Your task to perform on an android device: install app "Microsoft Authenticator" Image 0: 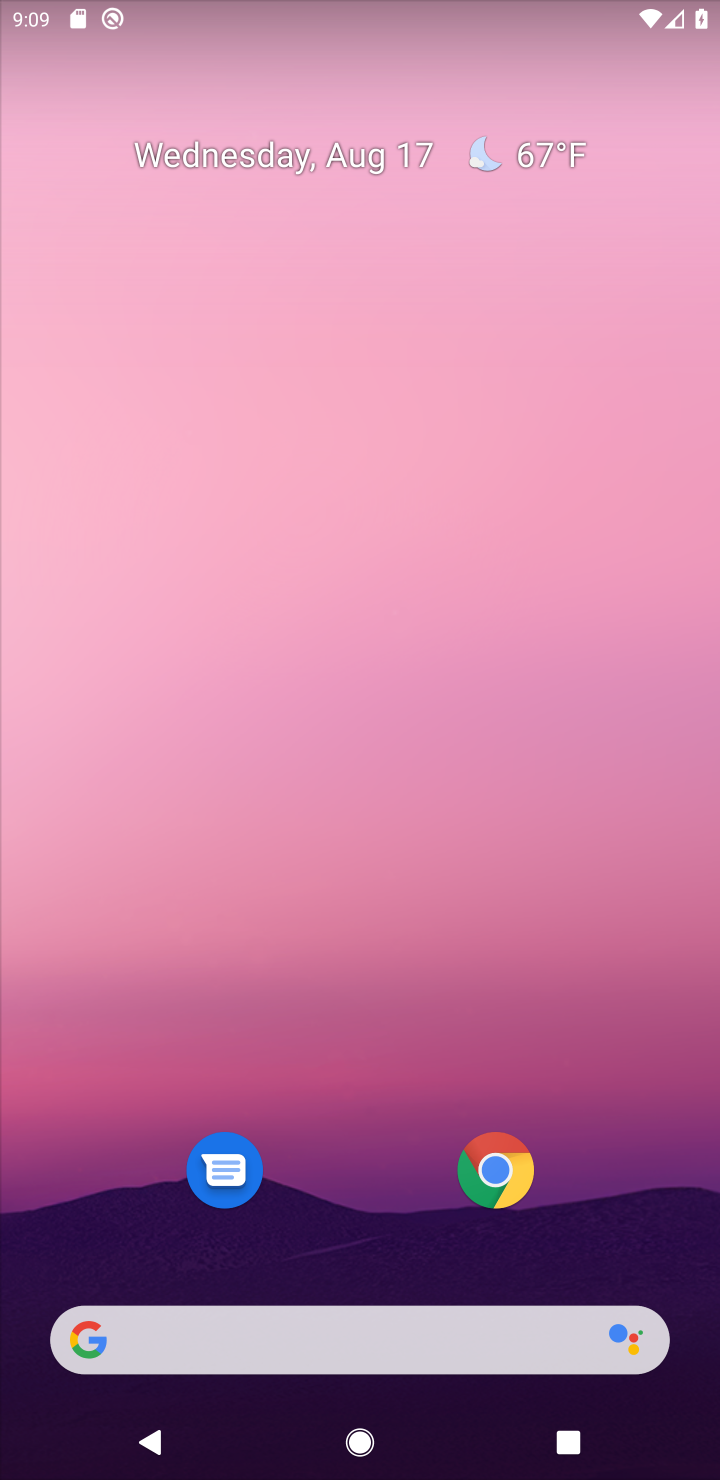
Step 0: press back button
Your task to perform on an android device: install app "Microsoft Authenticator" Image 1: 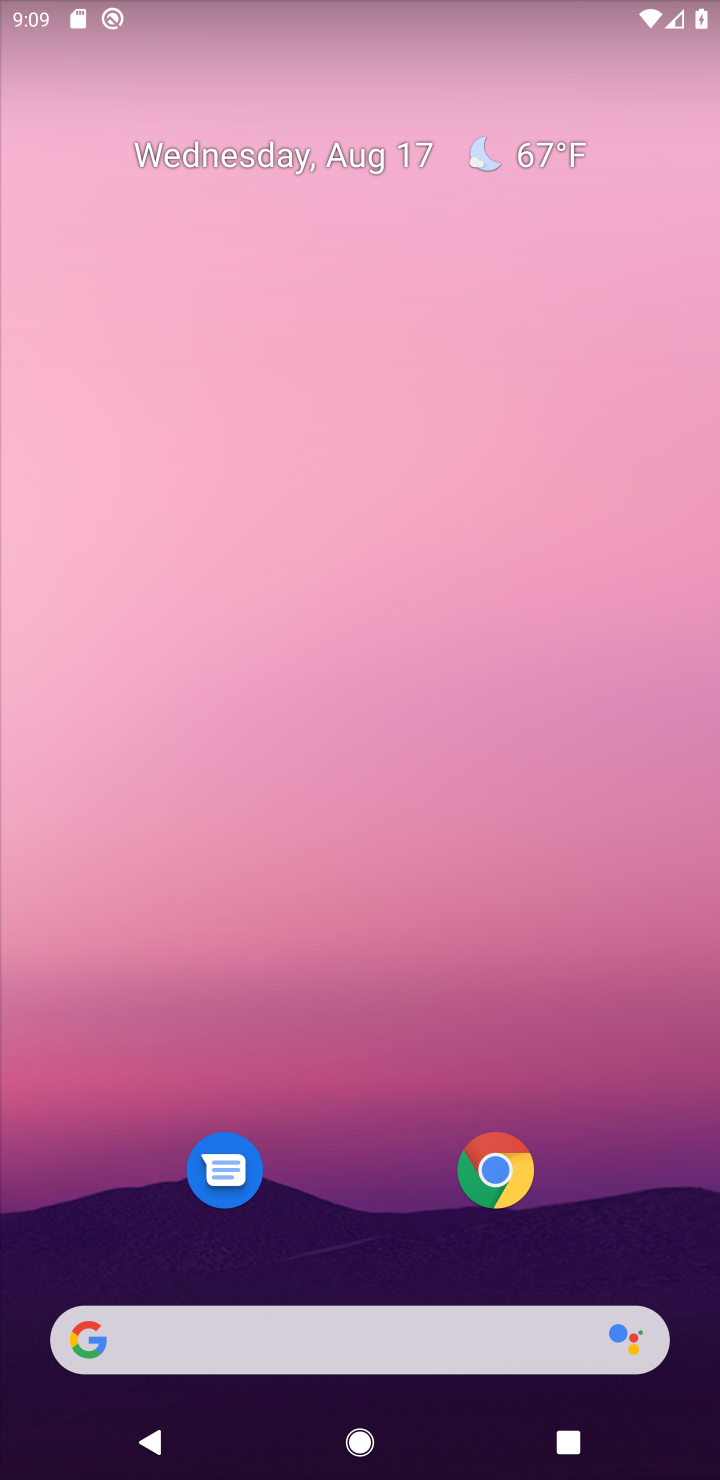
Step 1: press back button
Your task to perform on an android device: install app "Microsoft Authenticator" Image 2: 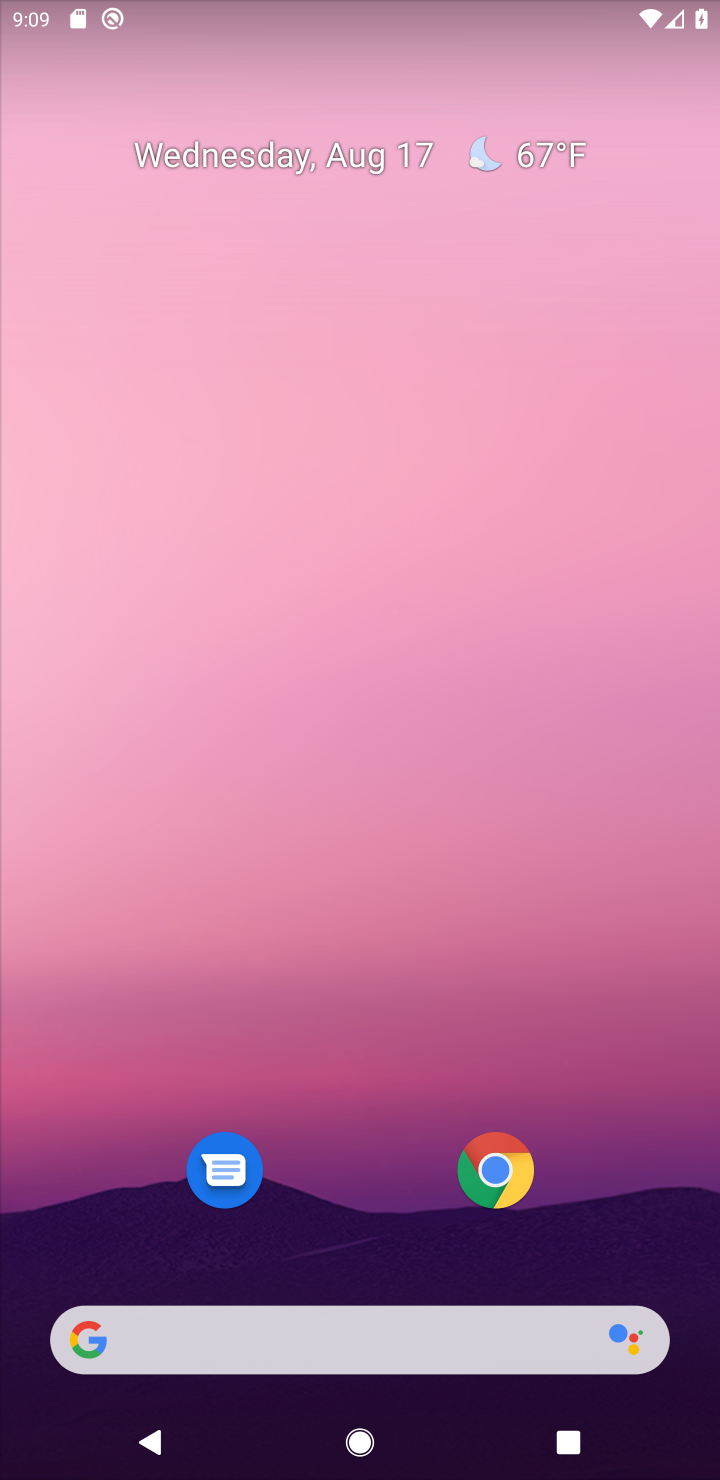
Step 2: drag from (414, 1317) to (337, 162)
Your task to perform on an android device: install app "Microsoft Authenticator" Image 3: 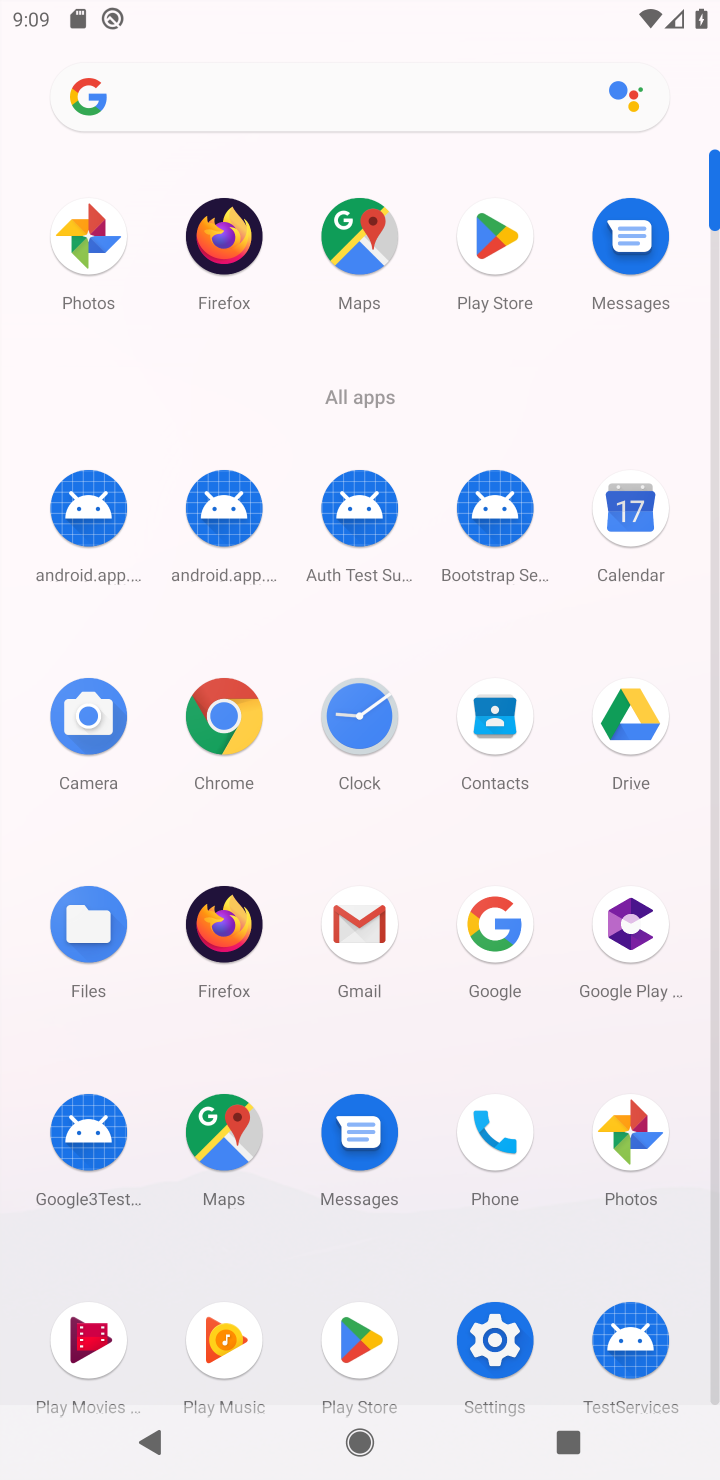
Step 3: click (358, 1334)
Your task to perform on an android device: install app "Microsoft Authenticator" Image 4: 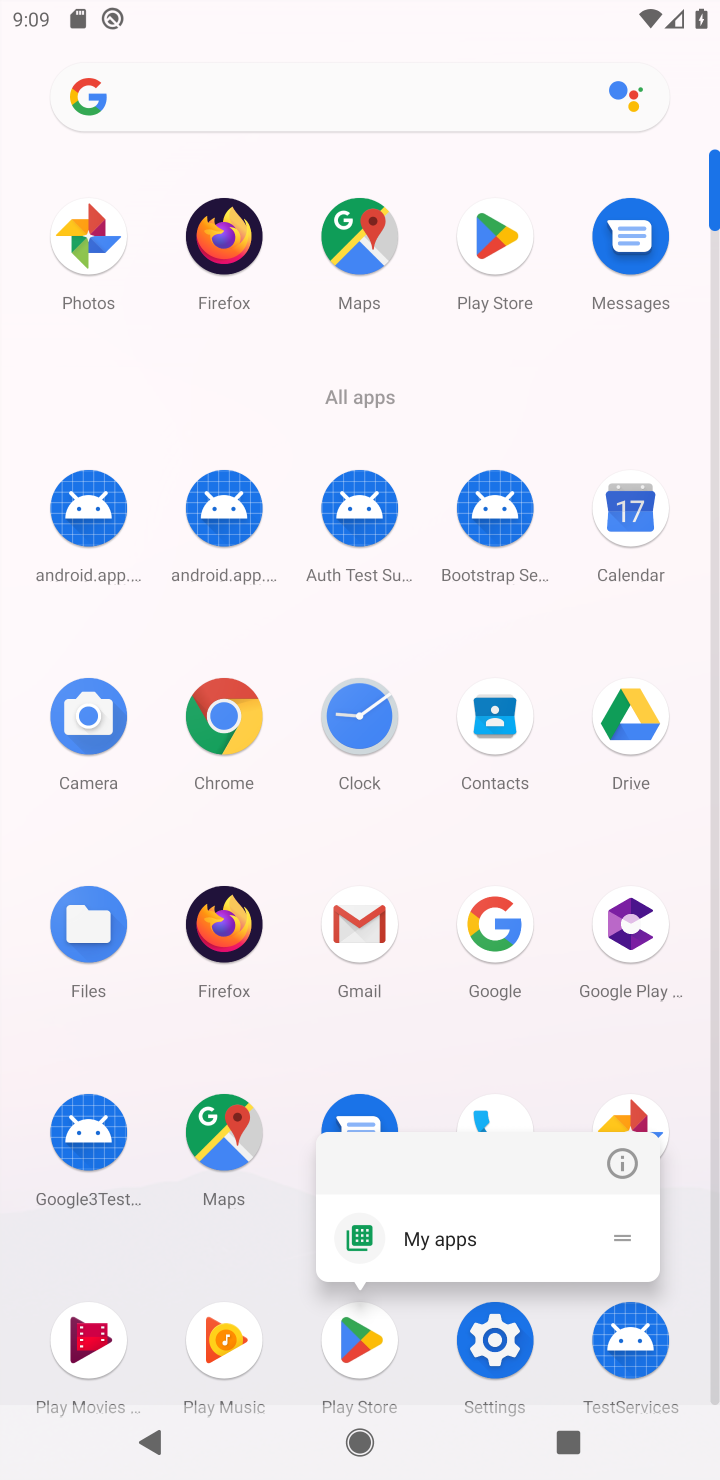
Step 4: click (357, 1337)
Your task to perform on an android device: install app "Microsoft Authenticator" Image 5: 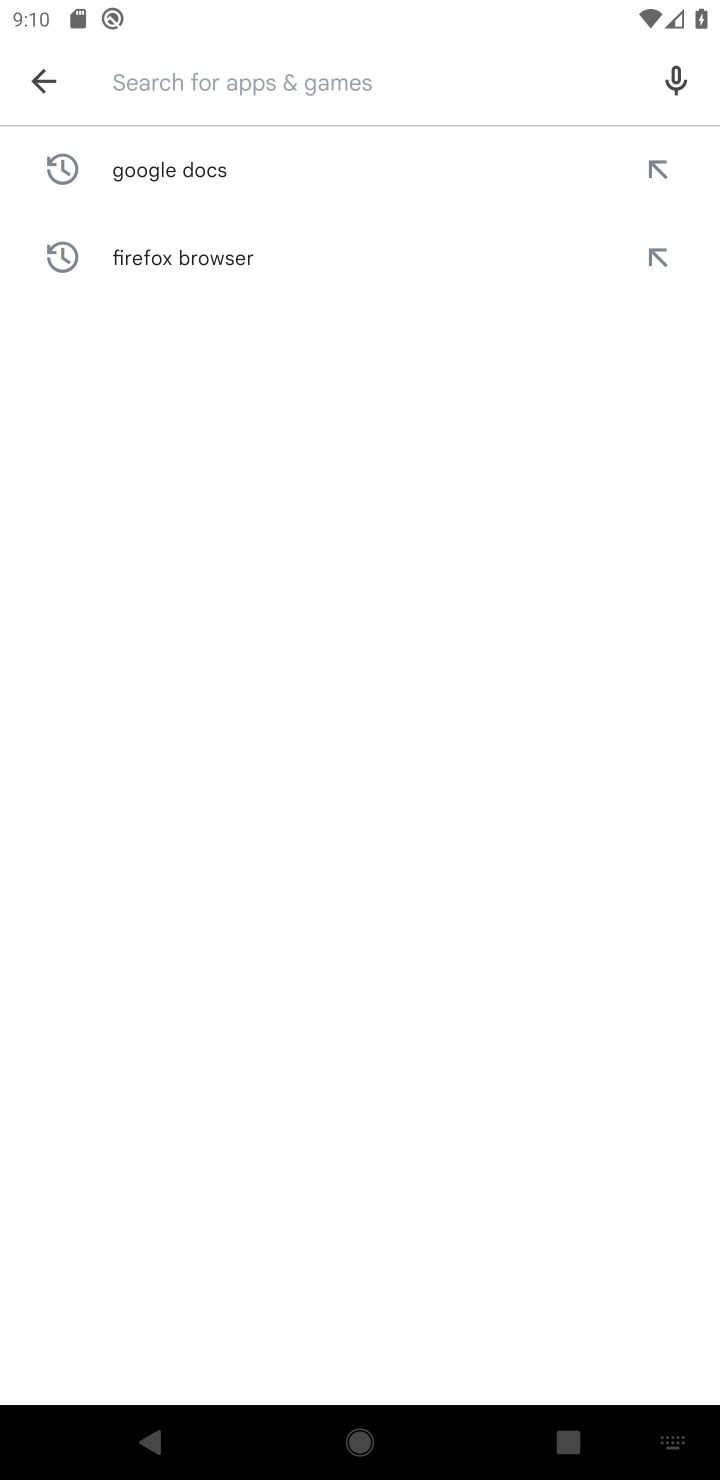
Step 5: type "Microsoft Authenticator"
Your task to perform on an android device: install app "Microsoft Authenticator" Image 6: 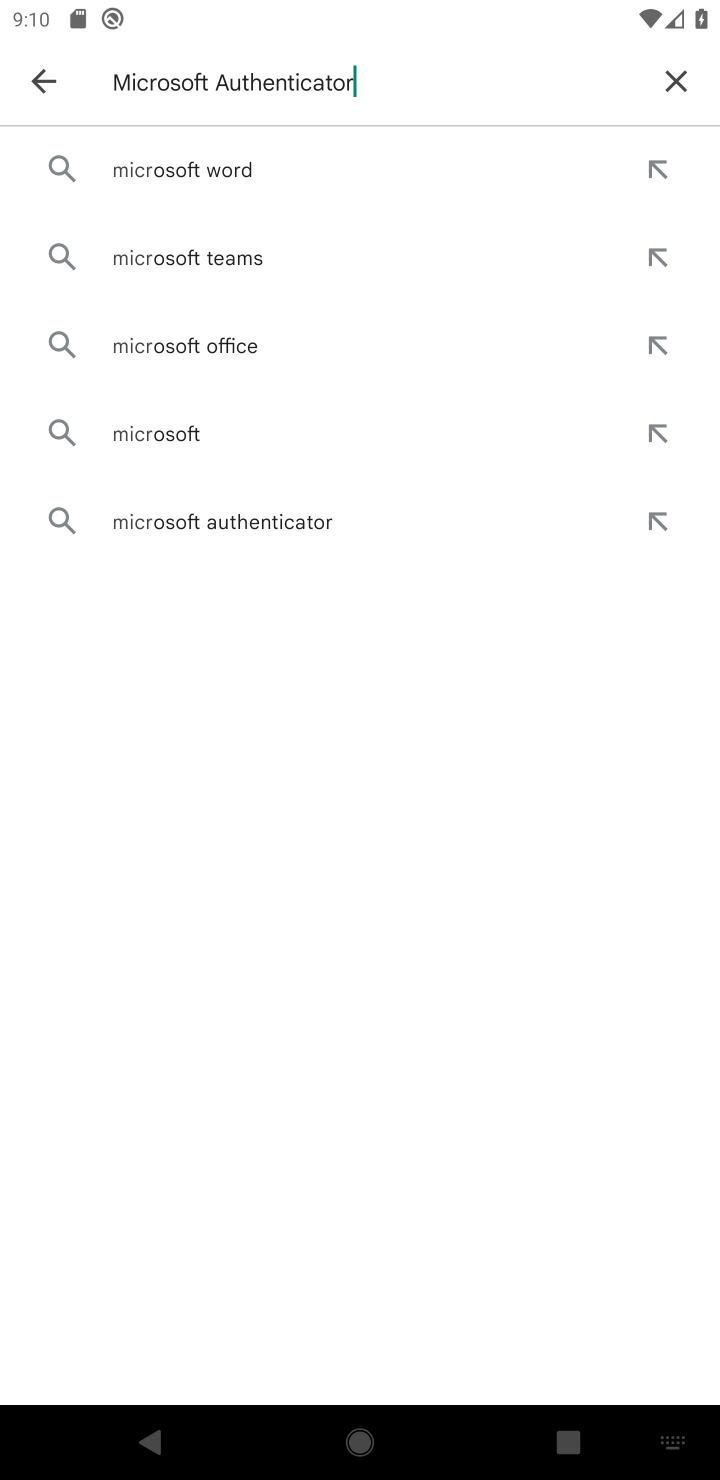
Step 6: type ""
Your task to perform on an android device: install app "Microsoft Authenticator" Image 7: 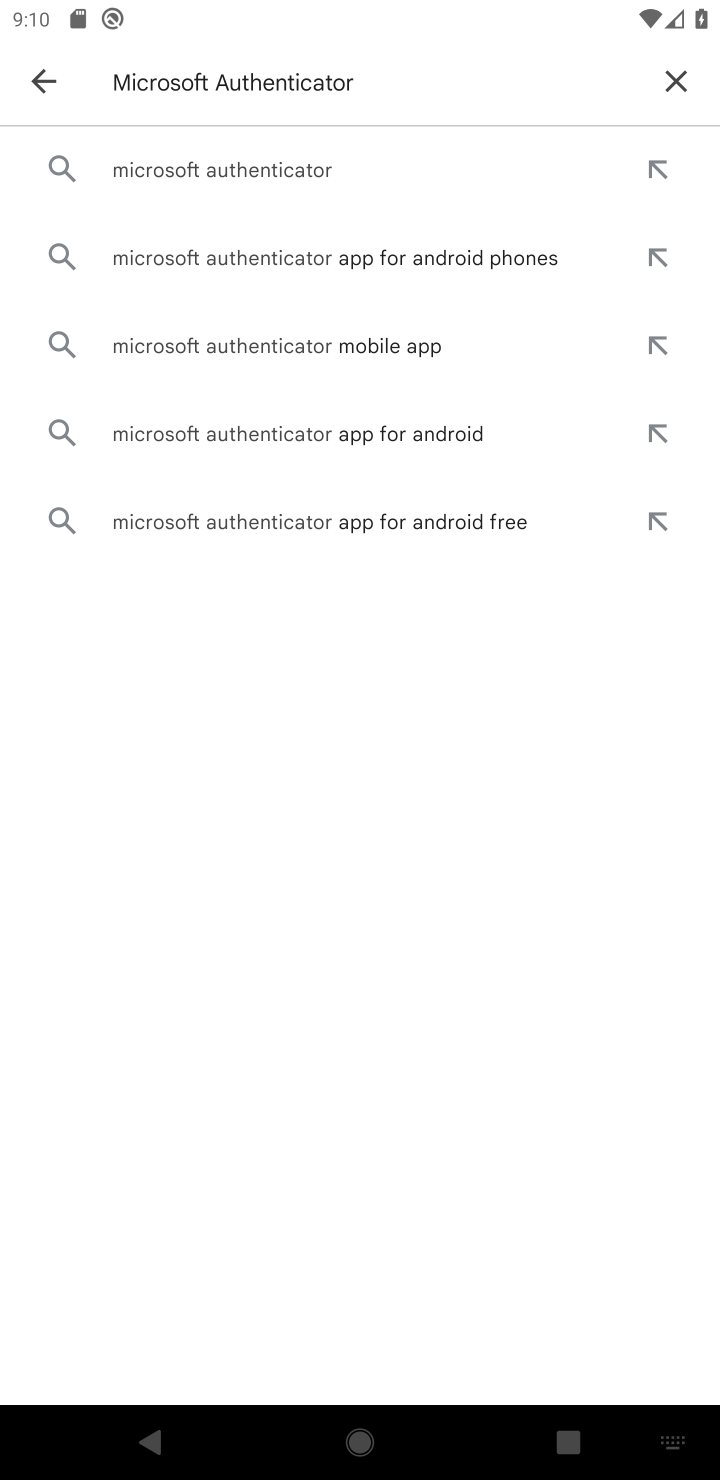
Step 7: click (157, 170)
Your task to perform on an android device: install app "Microsoft Authenticator" Image 8: 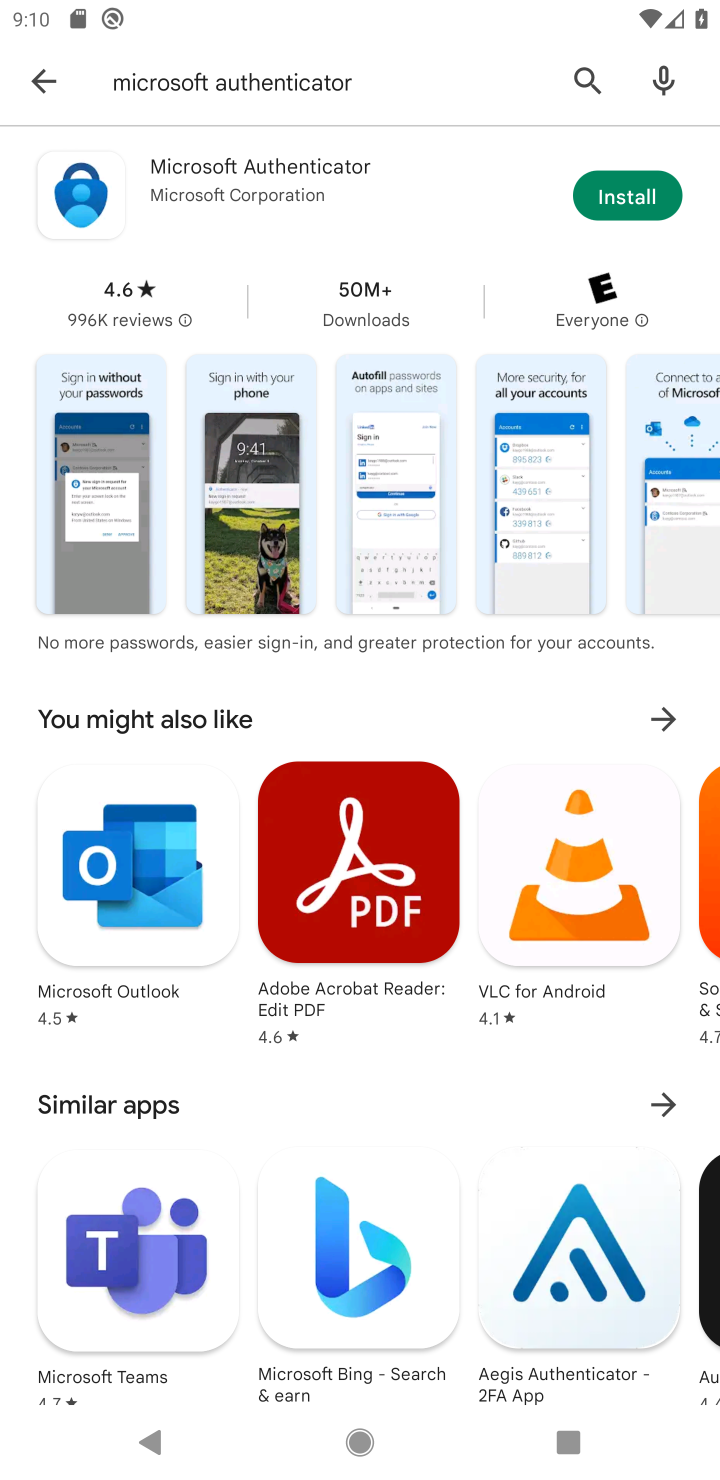
Step 8: click (609, 189)
Your task to perform on an android device: install app "Microsoft Authenticator" Image 9: 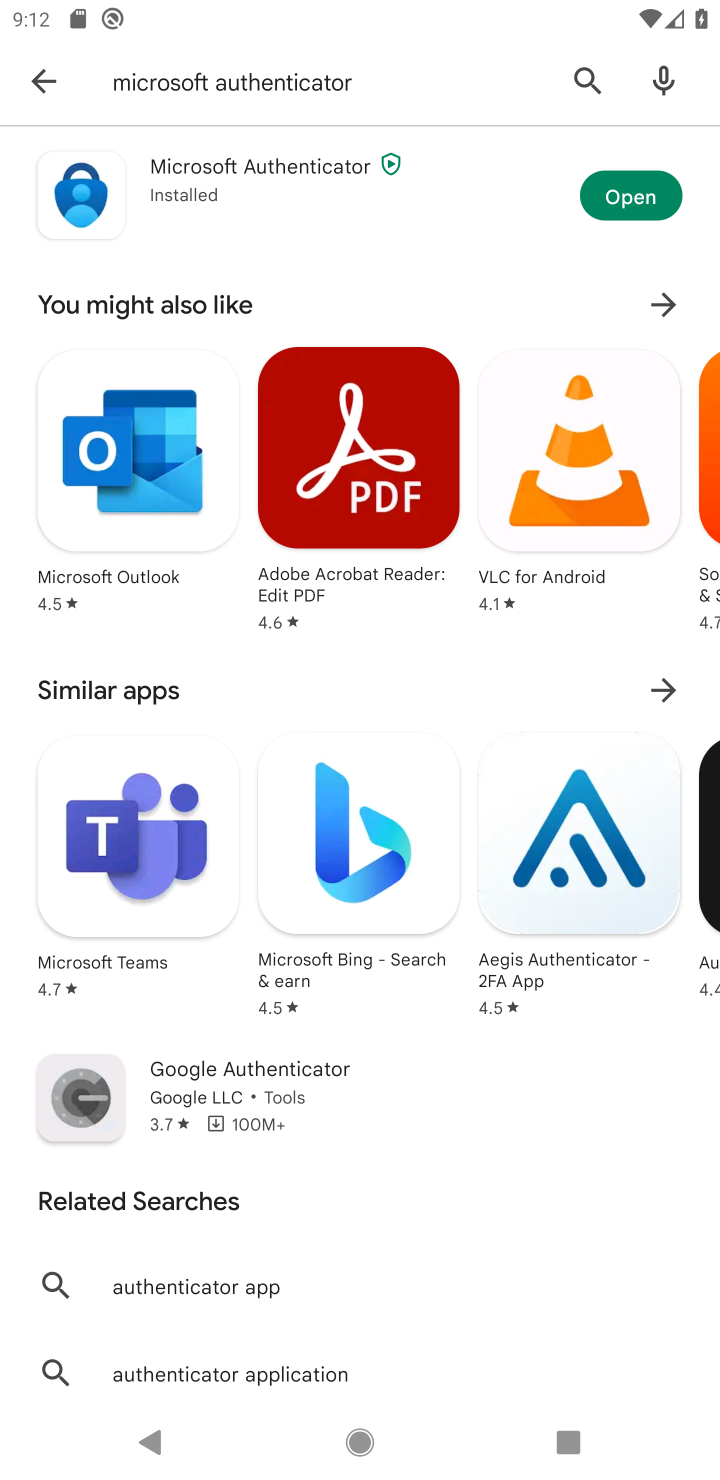
Step 9: click (657, 175)
Your task to perform on an android device: install app "Microsoft Authenticator" Image 10: 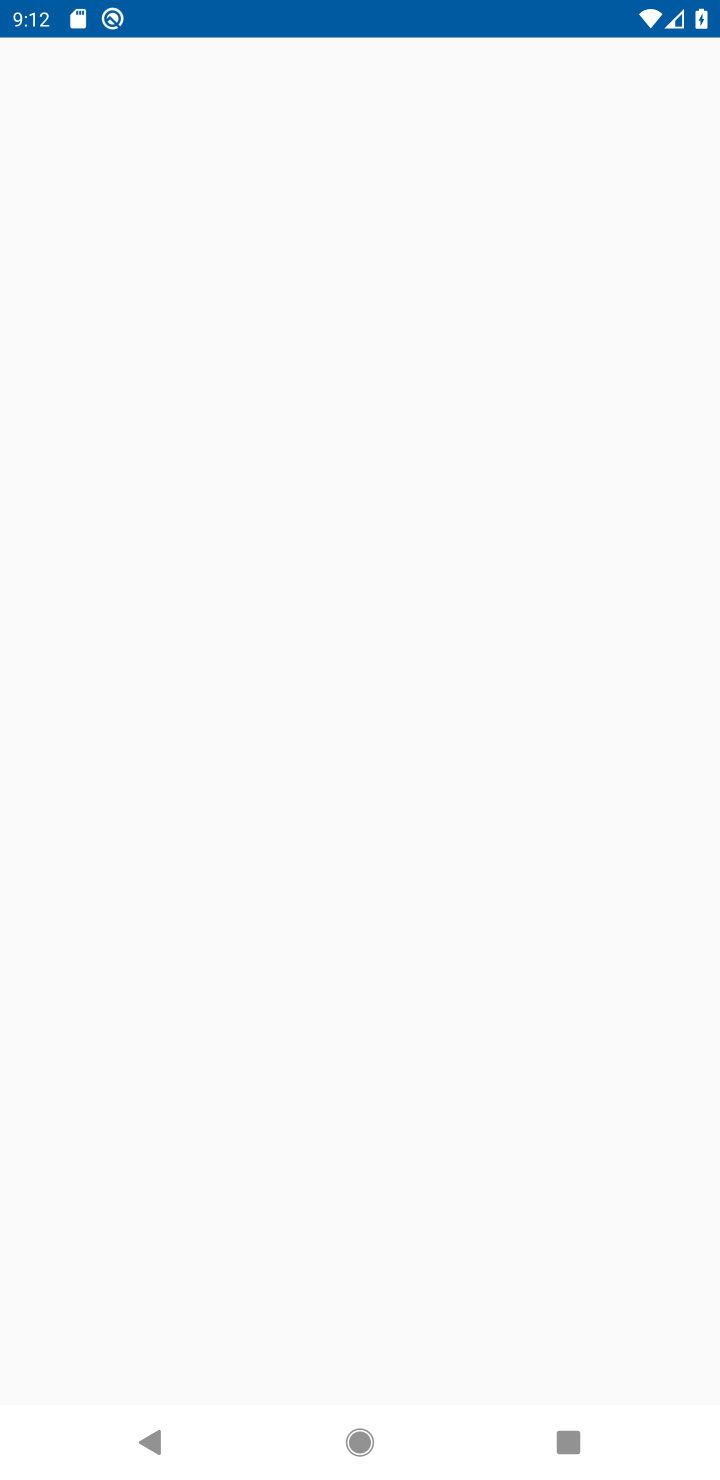
Step 10: task complete